Your task to perform on an android device: see tabs open on other devices in the chrome app Image 0: 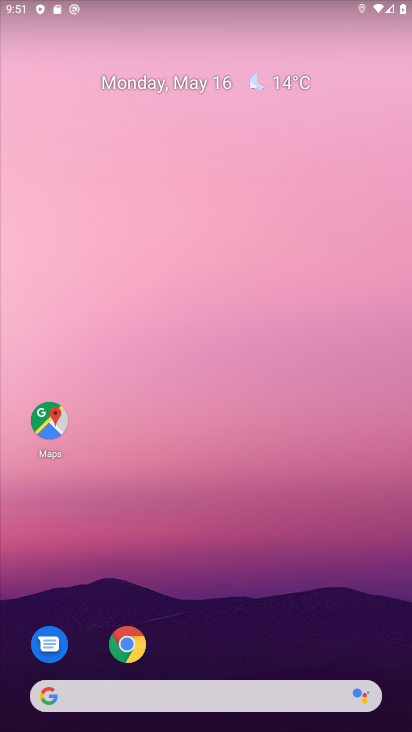
Step 0: click (121, 639)
Your task to perform on an android device: see tabs open on other devices in the chrome app Image 1: 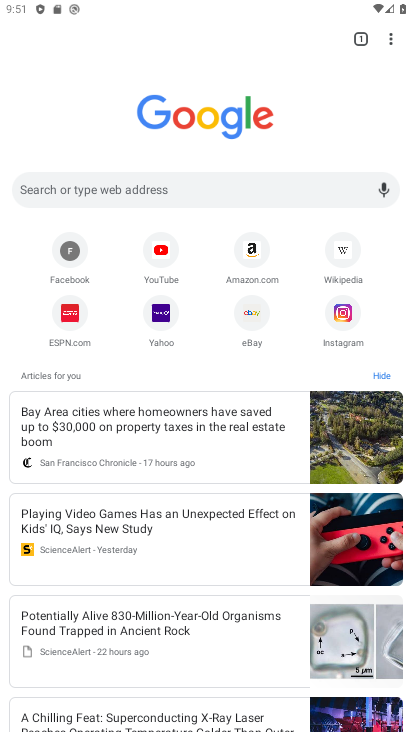
Step 1: click (394, 36)
Your task to perform on an android device: see tabs open on other devices in the chrome app Image 2: 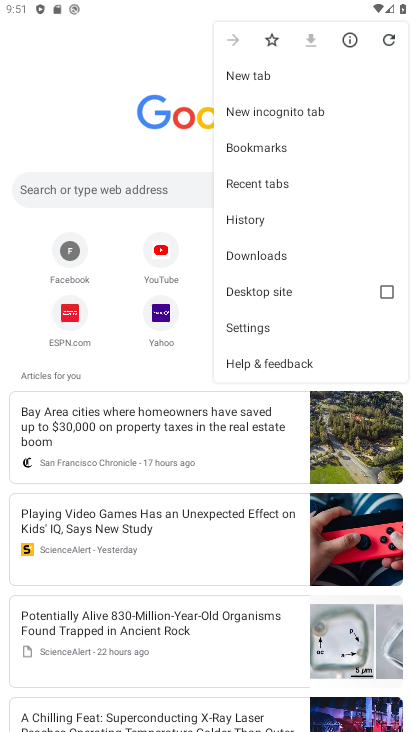
Step 2: click (271, 186)
Your task to perform on an android device: see tabs open on other devices in the chrome app Image 3: 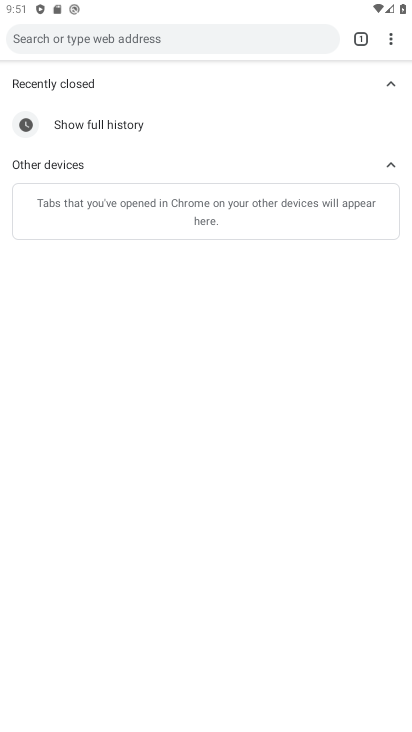
Step 3: task complete